Your task to perform on an android device: open sync settings in chrome Image 0: 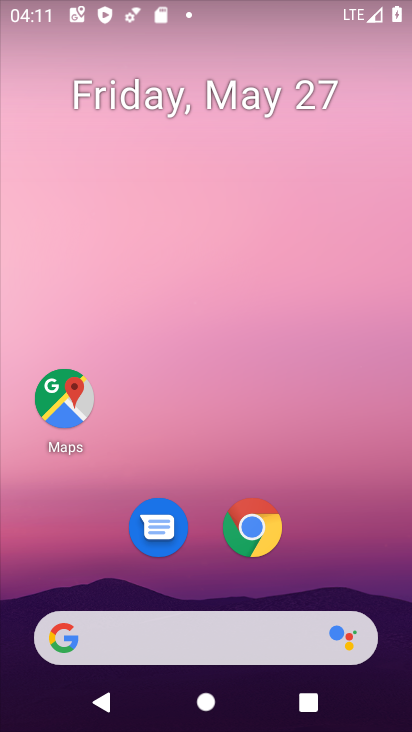
Step 0: click (252, 521)
Your task to perform on an android device: open sync settings in chrome Image 1: 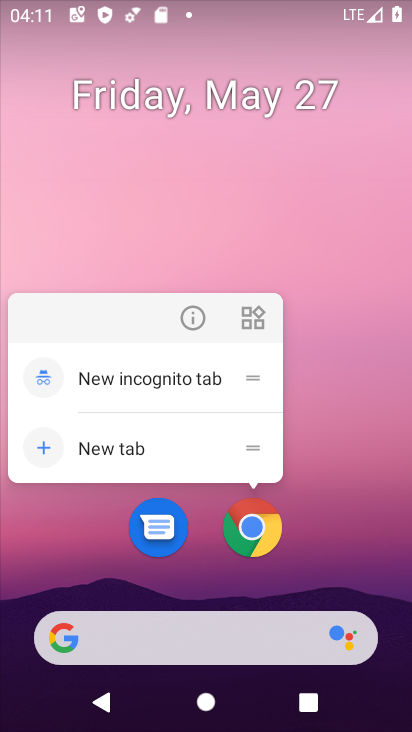
Step 1: click (245, 527)
Your task to perform on an android device: open sync settings in chrome Image 2: 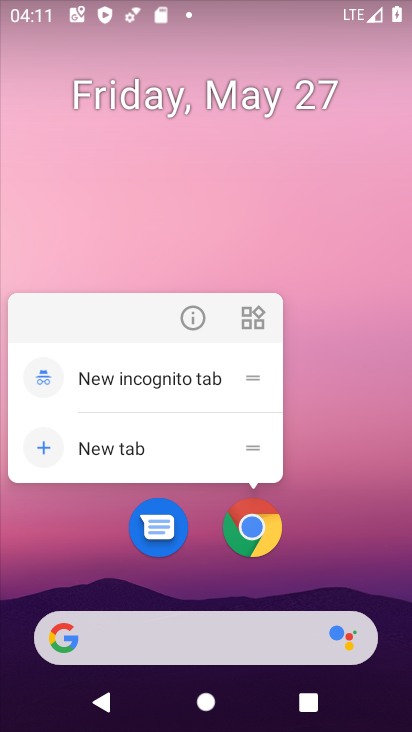
Step 2: click (245, 527)
Your task to perform on an android device: open sync settings in chrome Image 3: 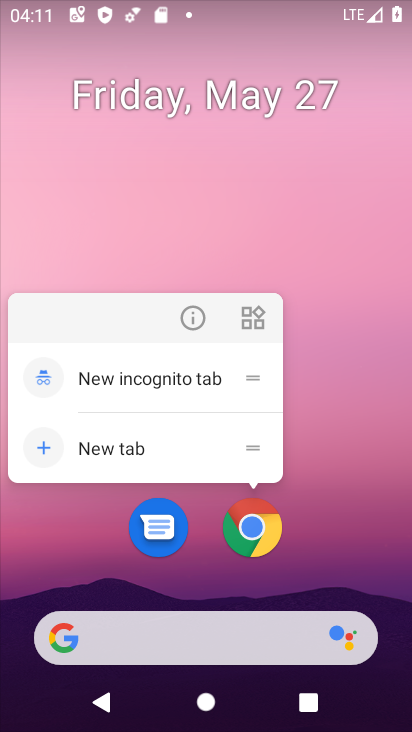
Step 3: click (245, 527)
Your task to perform on an android device: open sync settings in chrome Image 4: 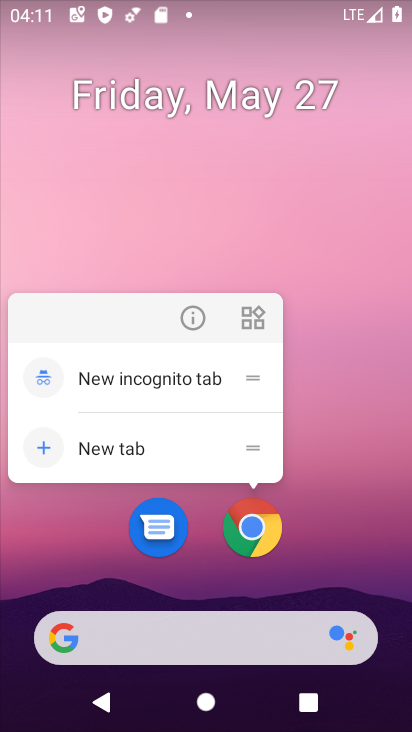
Step 4: click (343, 408)
Your task to perform on an android device: open sync settings in chrome Image 5: 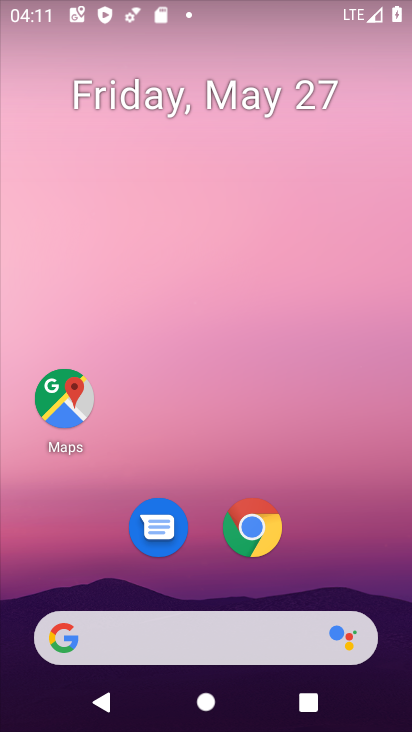
Step 5: drag from (345, 579) to (361, 57)
Your task to perform on an android device: open sync settings in chrome Image 6: 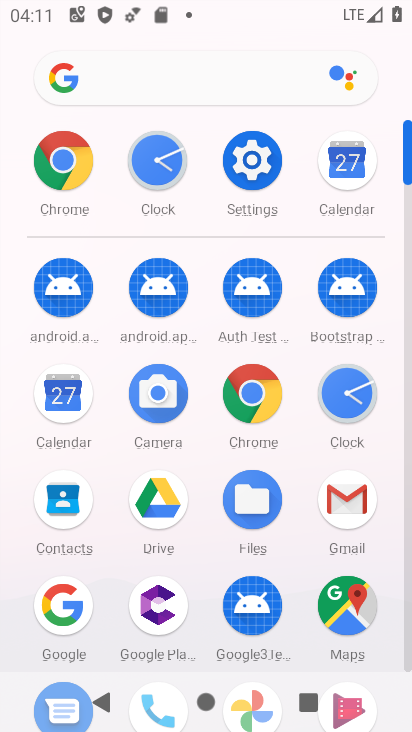
Step 6: click (250, 398)
Your task to perform on an android device: open sync settings in chrome Image 7: 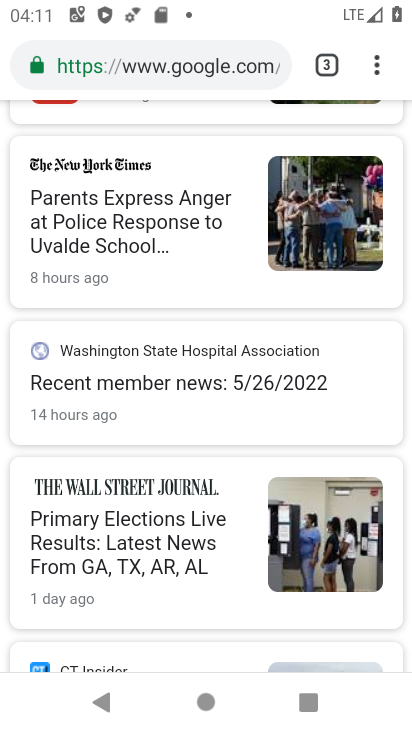
Step 7: drag from (380, 71) to (153, 571)
Your task to perform on an android device: open sync settings in chrome Image 8: 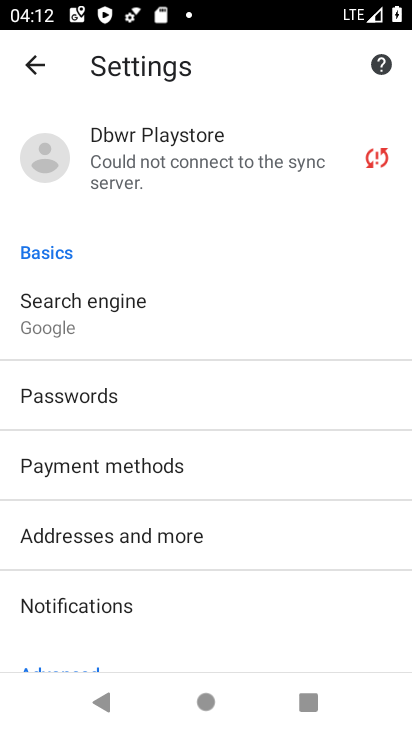
Step 8: drag from (140, 608) to (143, 533)
Your task to perform on an android device: open sync settings in chrome Image 9: 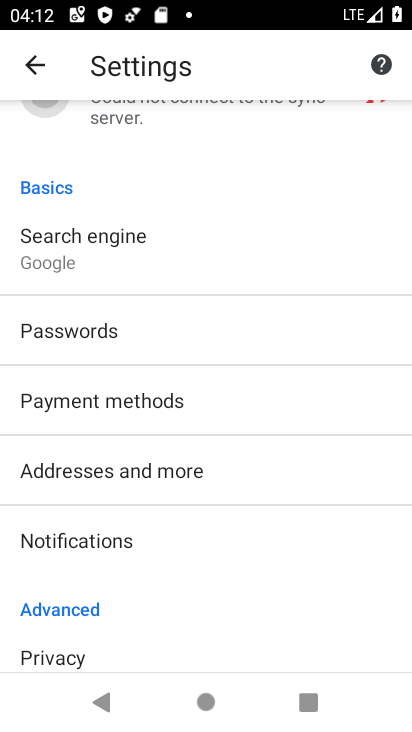
Step 9: drag from (130, 180) to (104, 497)
Your task to perform on an android device: open sync settings in chrome Image 10: 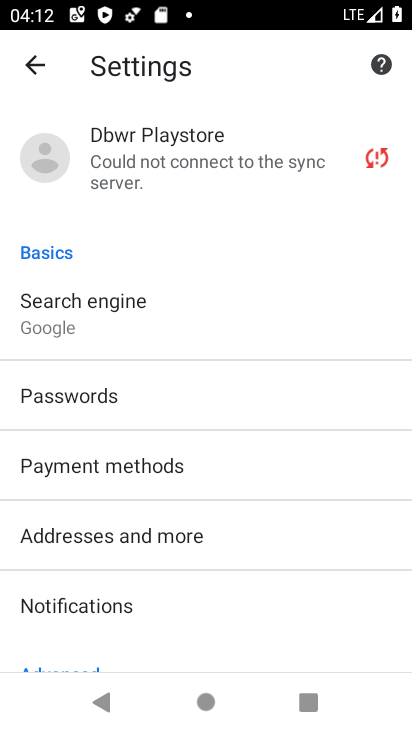
Step 10: click (49, 142)
Your task to perform on an android device: open sync settings in chrome Image 11: 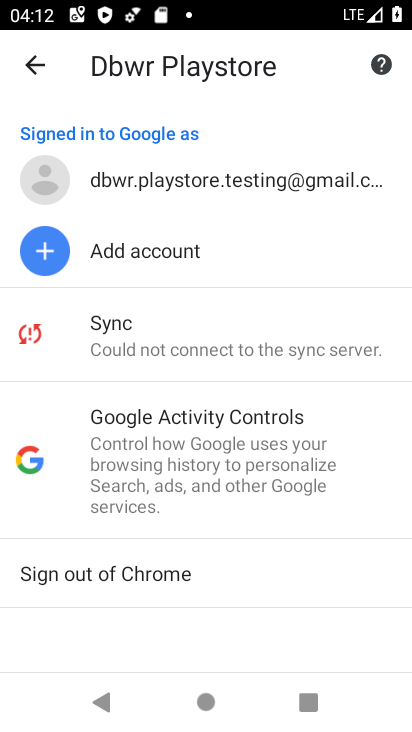
Step 11: click (179, 334)
Your task to perform on an android device: open sync settings in chrome Image 12: 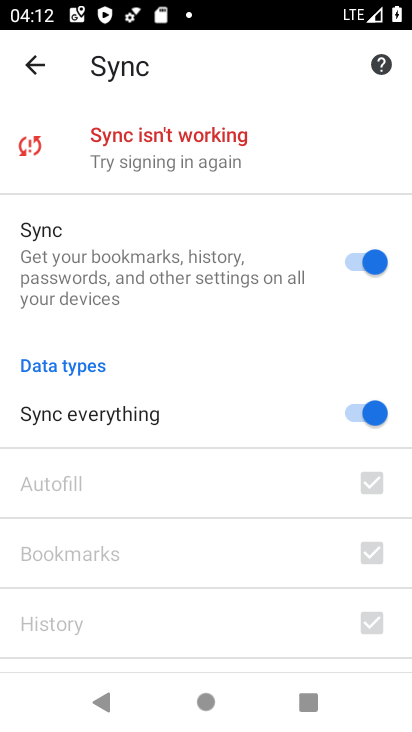
Step 12: task complete